Your task to perform on an android device: make emails show in primary in the gmail app Image 0: 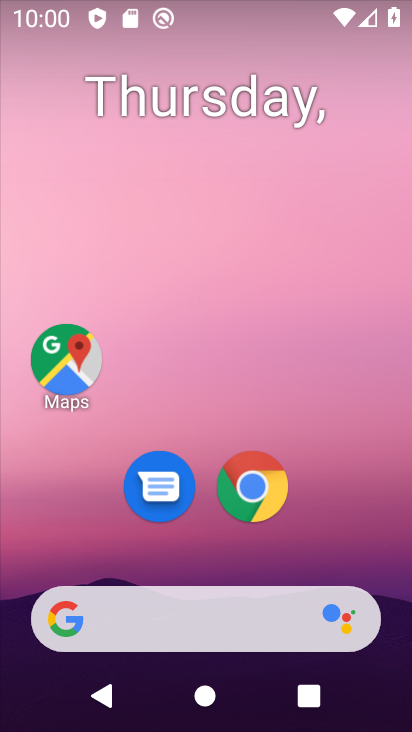
Step 0: drag from (110, 527) to (170, 100)
Your task to perform on an android device: make emails show in primary in the gmail app Image 1: 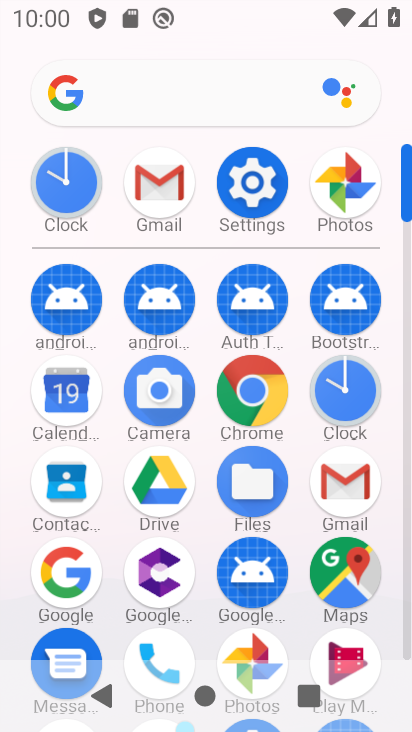
Step 1: click (151, 187)
Your task to perform on an android device: make emails show in primary in the gmail app Image 2: 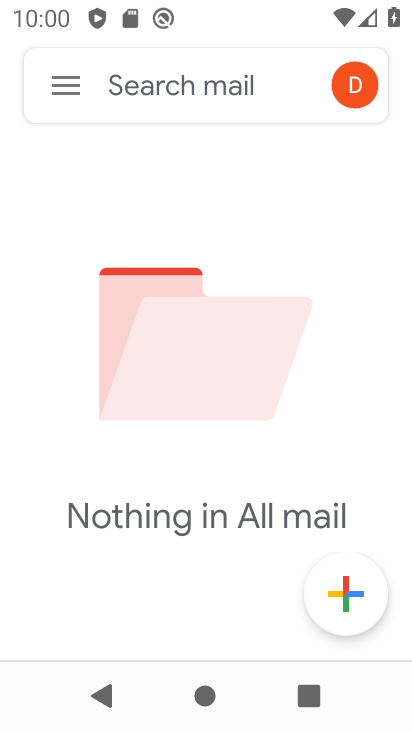
Step 2: click (74, 78)
Your task to perform on an android device: make emails show in primary in the gmail app Image 3: 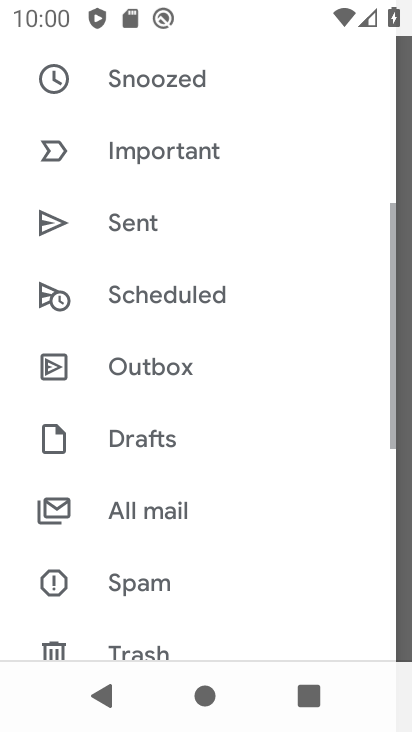
Step 3: drag from (167, 569) to (224, 51)
Your task to perform on an android device: make emails show in primary in the gmail app Image 4: 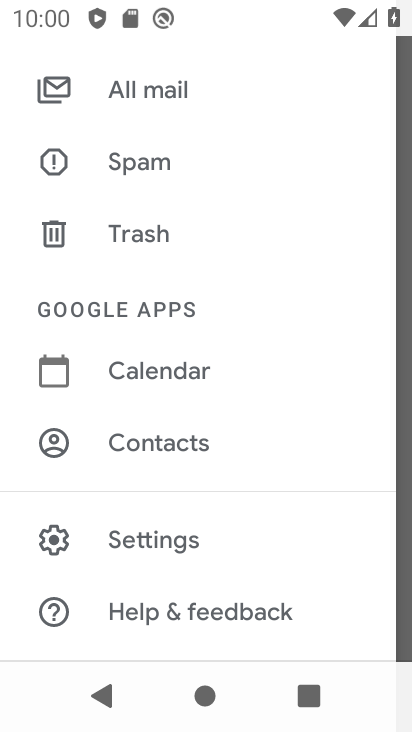
Step 4: click (152, 551)
Your task to perform on an android device: make emails show in primary in the gmail app Image 5: 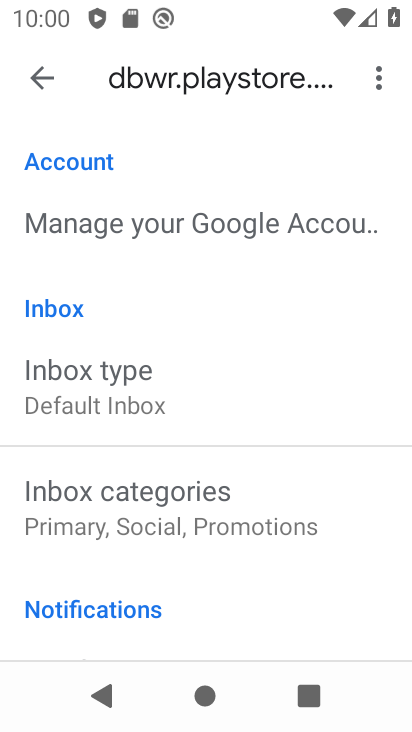
Step 5: click (126, 488)
Your task to perform on an android device: make emails show in primary in the gmail app Image 6: 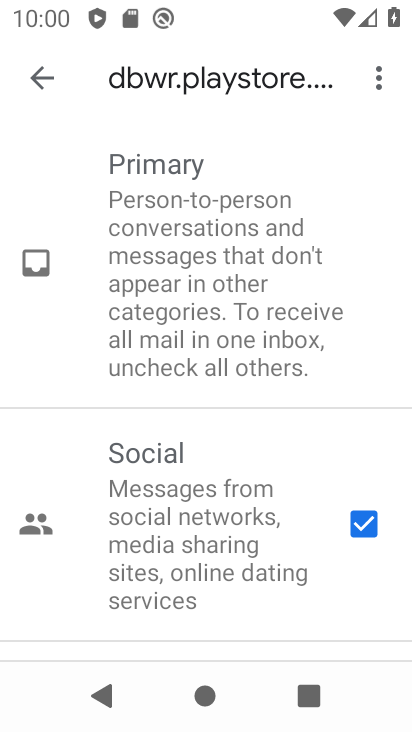
Step 6: drag from (276, 580) to (351, 40)
Your task to perform on an android device: make emails show in primary in the gmail app Image 7: 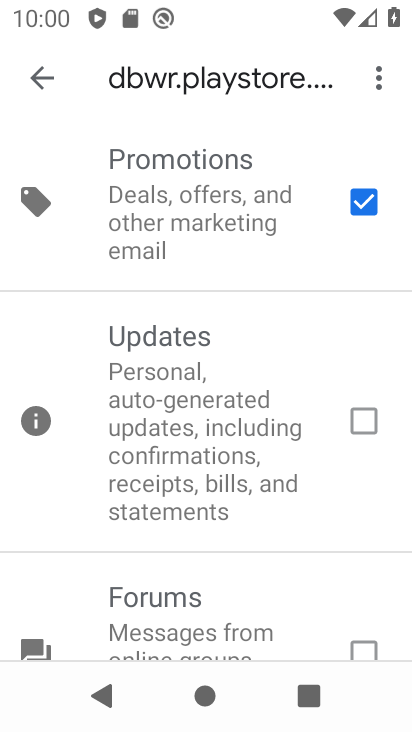
Step 7: click (360, 411)
Your task to perform on an android device: make emails show in primary in the gmail app Image 8: 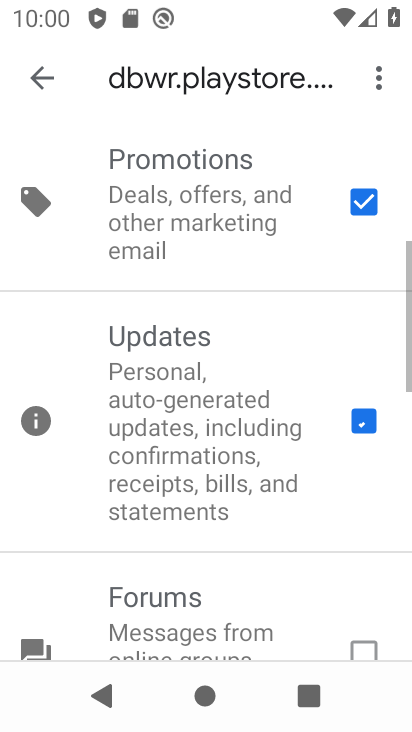
Step 8: drag from (243, 585) to (299, 153)
Your task to perform on an android device: make emails show in primary in the gmail app Image 9: 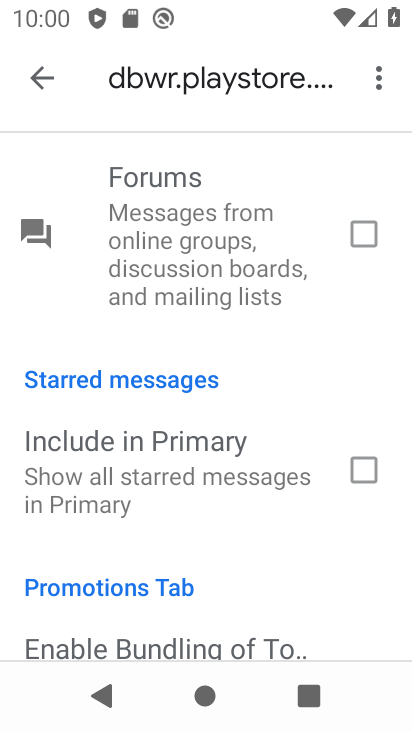
Step 9: click (355, 470)
Your task to perform on an android device: make emails show in primary in the gmail app Image 10: 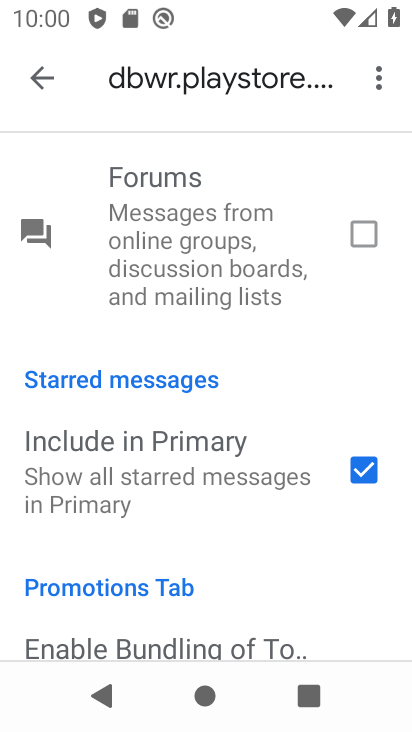
Step 10: task complete